Your task to perform on an android device: What's the time in New York? Image 0: 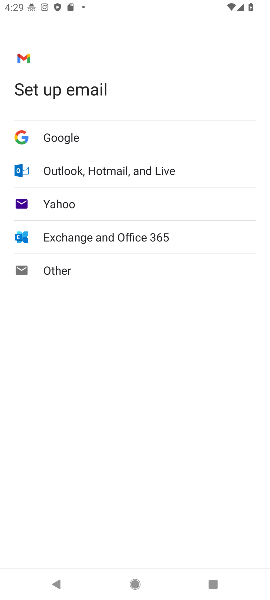
Step 0: press home button
Your task to perform on an android device: What's the time in New York? Image 1: 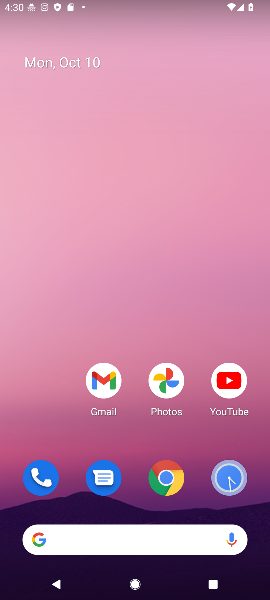
Step 1: click (65, 542)
Your task to perform on an android device: What's the time in New York? Image 2: 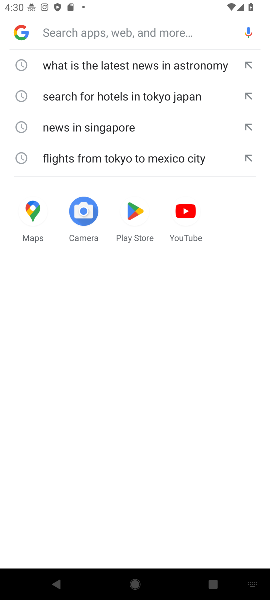
Step 2: type "What's the time in New York?"
Your task to perform on an android device: What's the time in New York? Image 3: 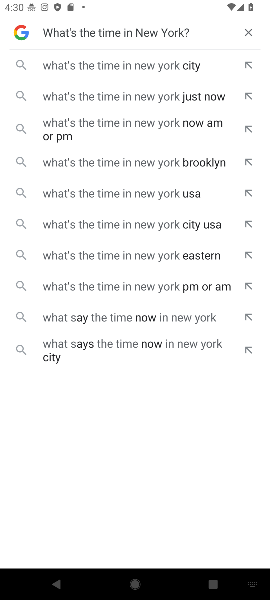
Step 3: click (187, 60)
Your task to perform on an android device: What's the time in New York? Image 4: 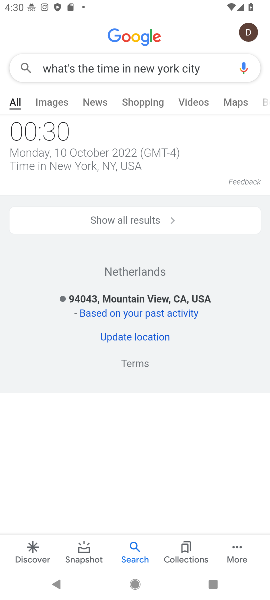
Step 4: task complete